Your task to perform on an android device: toggle sleep mode Image 0: 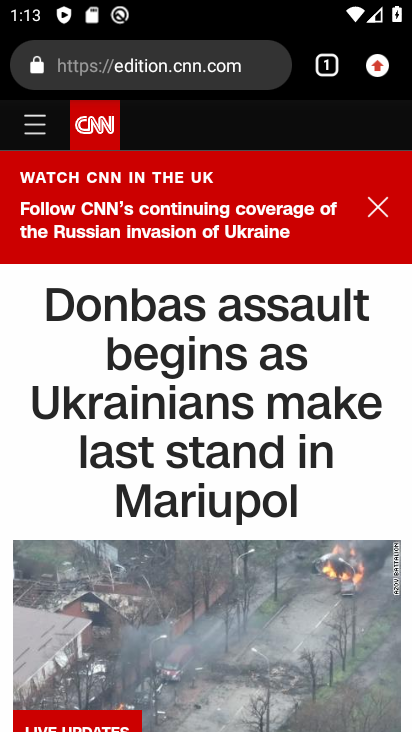
Step 0: press home button
Your task to perform on an android device: toggle sleep mode Image 1: 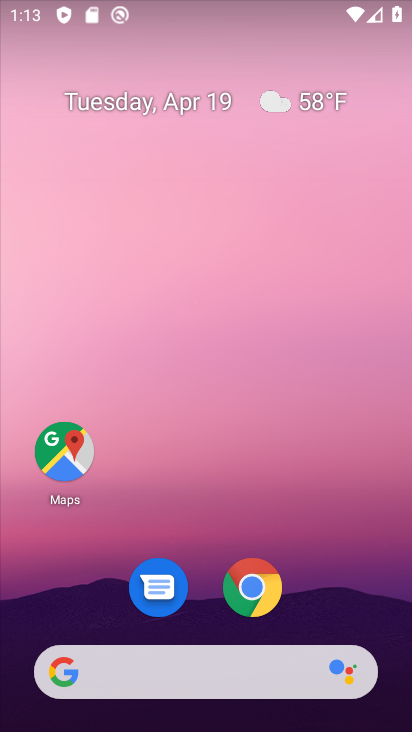
Step 1: drag from (325, 508) to (274, 99)
Your task to perform on an android device: toggle sleep mode Image 2: 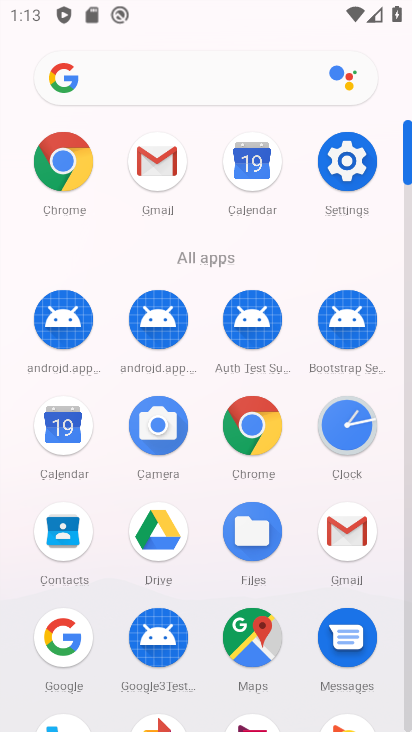
Step 2: click (355, 167)
Your task to perform on an android device: toggle sleep mode Image 3: 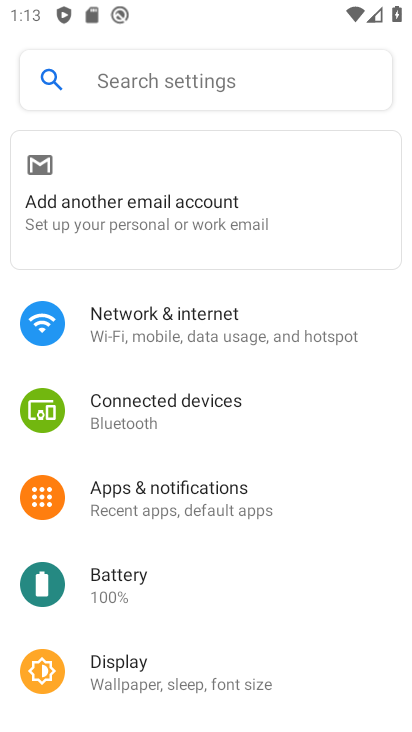
Step 3: click (177, 679)
Your task to perform on an android device: toggle sleep mode Image 4: 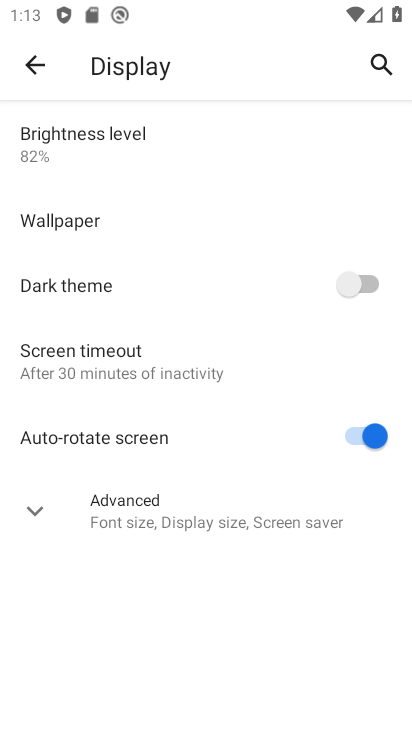
Step 4: click (129, 513)
Your task to perform on an android device: toggle sleep mode Image 5: 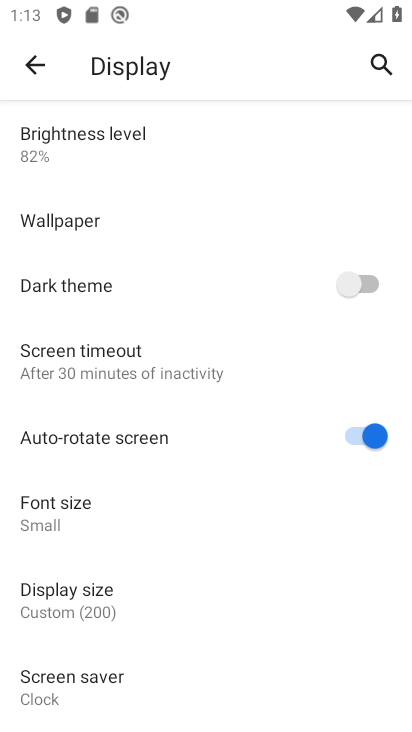
Step 5: task complete